Your task to perform on an android device: Do I have any events today? Image 0: 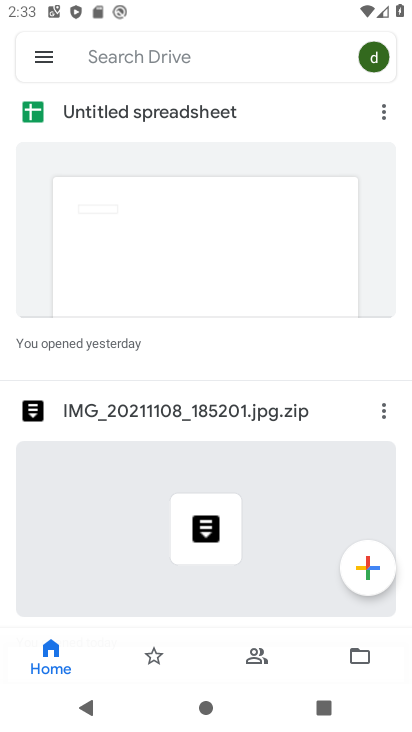
Step 0: press home button
Your task to perform on an android device: Do I have any events today? Image 1: 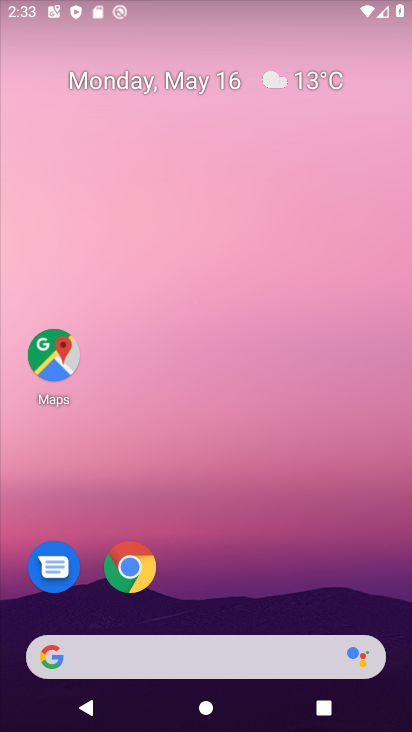
Step 1: drag from (364, 498) to (356, 99)
Your task to perform on an android device: Do I have any events today? Image 2: 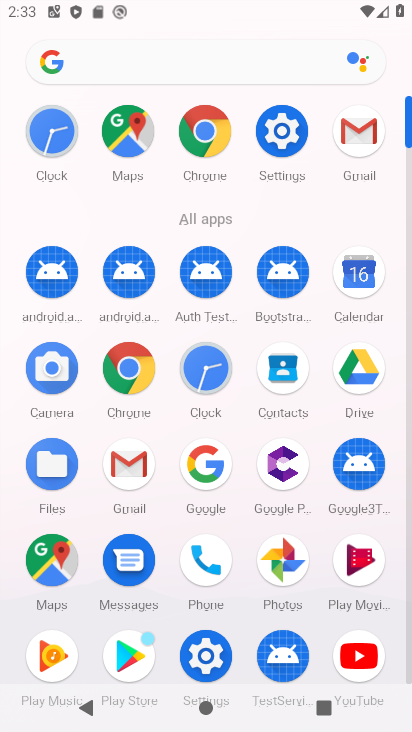
Step 2: click (347, 275)
Your task to perform on an android device: Do I have any events today? Image 3: 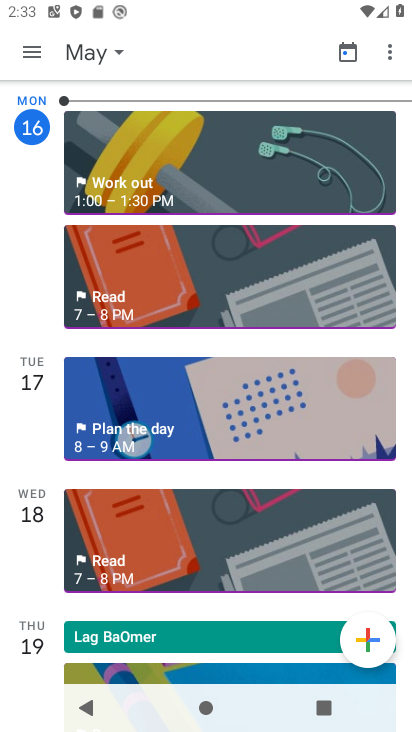
Step 3: task complete